Your task to perform on an android device: turn off notifications settings in the gmail app Image 0: 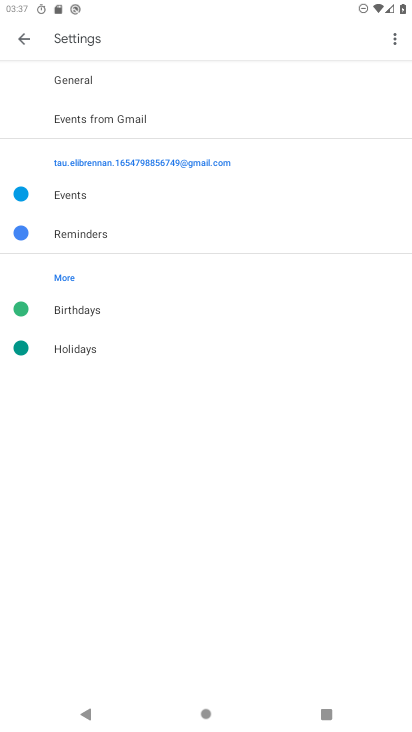
Step 0: press home button
Your task to perform on an android device: turn off notifications settings in the gmail app Image 1: 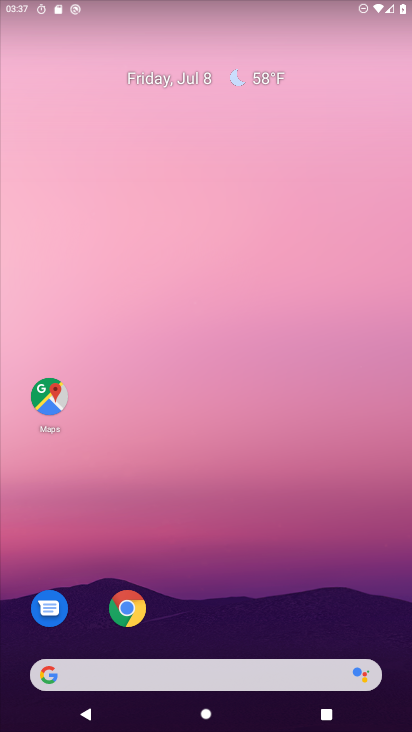
Step 1: drag from (228, 721) to (172, 9)
Your task to perform on an android device: turn off notifications settings in the gmail app Image 2: 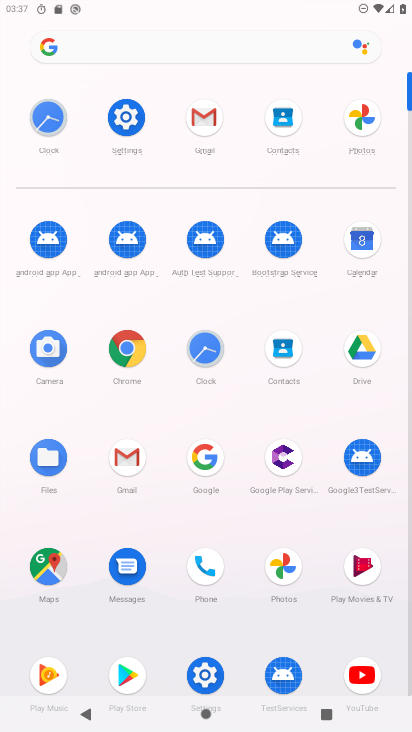
Step 2: click (126, 452)
Your task to perform on an android device: turn off notifications settings in the gmail app Image 3: 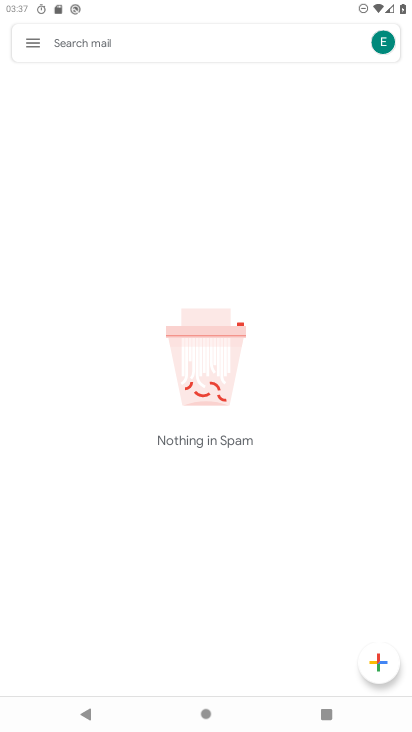
Step 3: click (36, 42)
Your task to perform on an android device: turn off notifications settings in the gmail app Image 4: 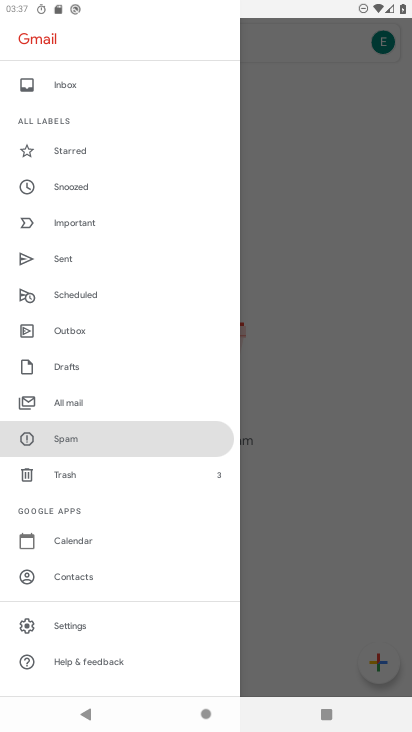
Step 4: click (66, 624)
Your task to perform on an android device: turn off notifications settings in the gmail app Image 5: 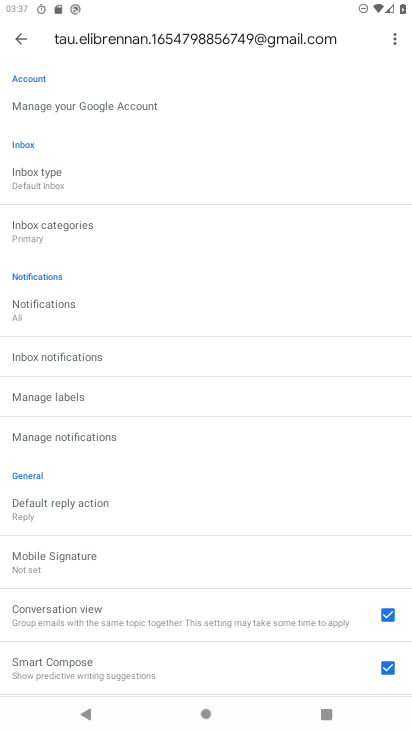
Step 5: click (33, 308)
Your task to perform on an android device: turn off notifications settings in the gmail app Image 6: 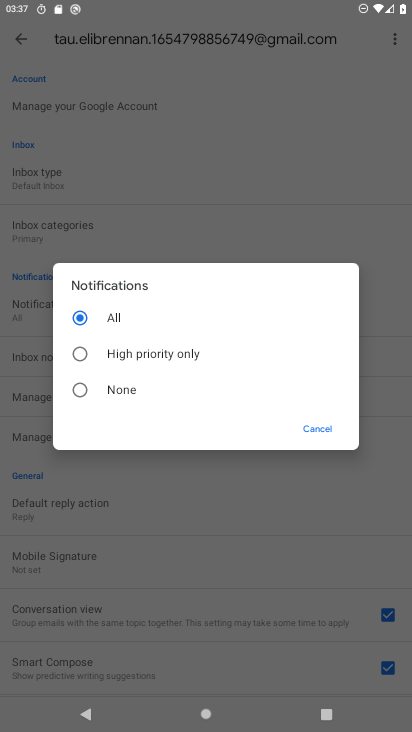
Step 6: click (75, 387)
Your task to perform on an android device: turn off notifications settings in the gmail app Image 7: 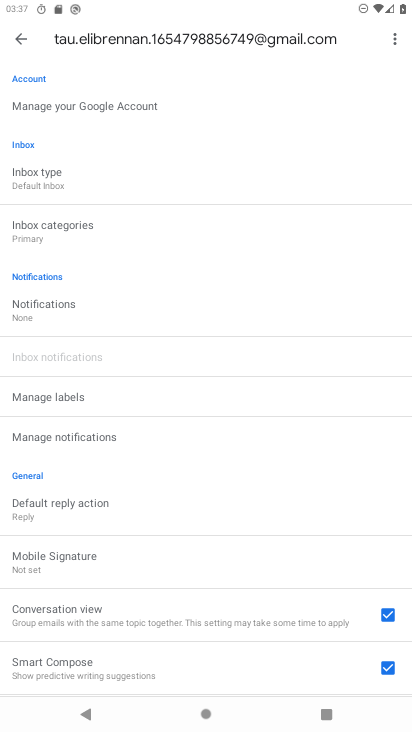
Step 7: task complete